Your task to perform on an android device: change keyboard looks Image 0: 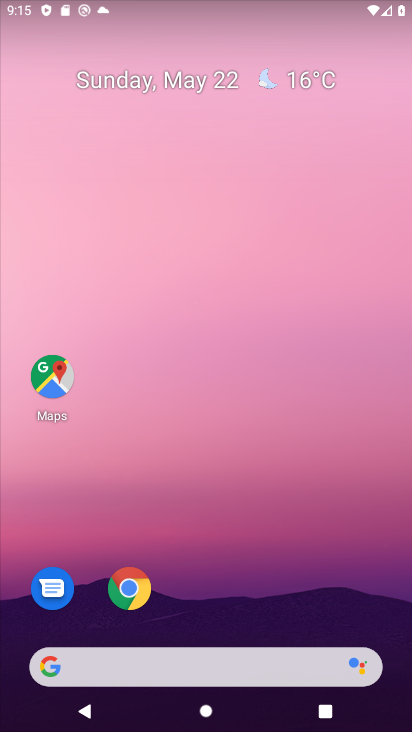
Step 0: drag from (220, 614) to (212, 106)
Your task to perform on an android device: change keyboard looks Image 1: 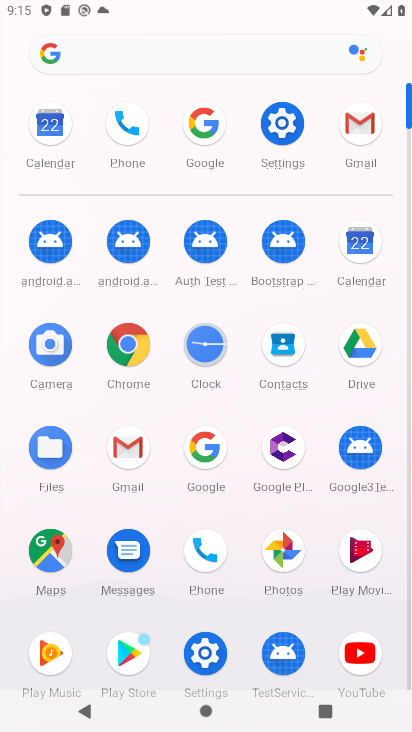
Step 1: click (316, 121)
Your task to perform on an android device: change keyboard looks Image 2: 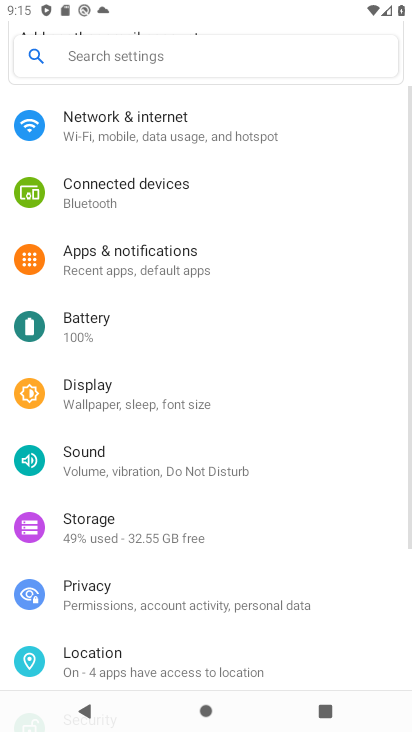
Step 2: drag from (156, 592) to (154, 237)
Your task to perform on an android device: change keyboard looks Image 3: 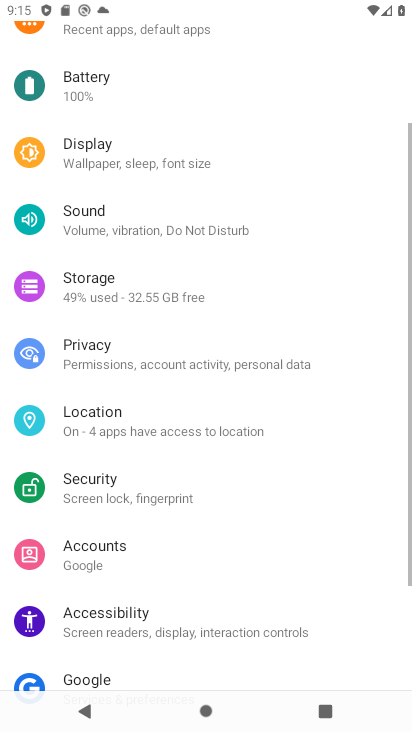
Step 3: drag from (227, 544) to (190, 282)
Your task to perform on an android device: change keyboard looks Image 4: 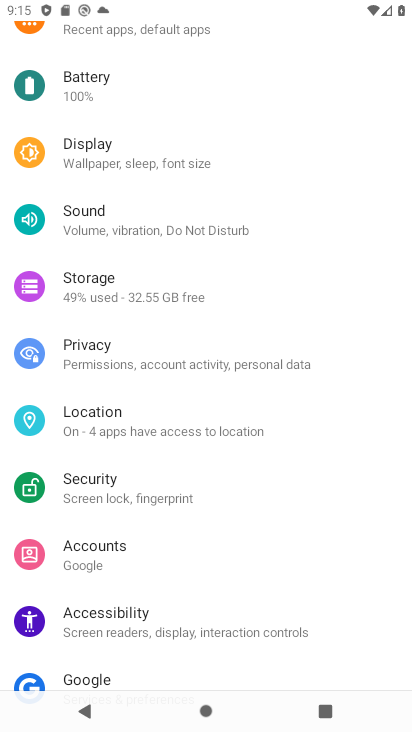
Step 4: drag from (125, 628) to (154, 309)
Your task to perform on an android device: change keyboard looks Image 5: 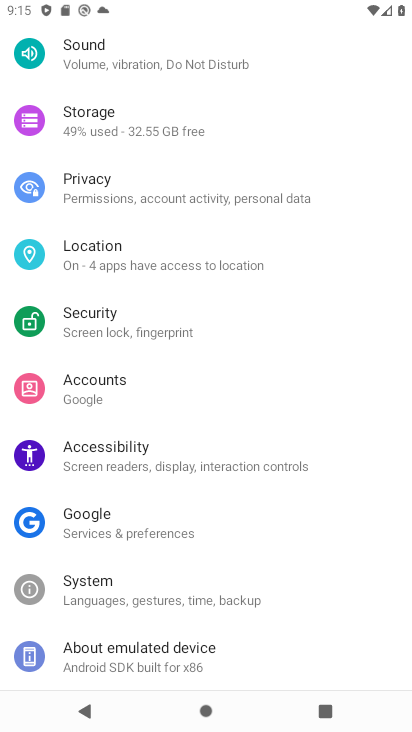
Step 5: click (105, 572)
Your task to perform on an android device: change keyboard looks Image 6: 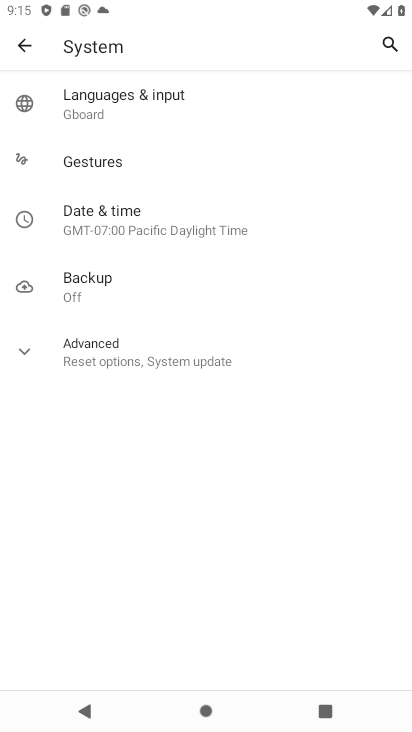
Step 6: click (110, 119)
Your task to perform on an android device: change keyboard looks Image 7: 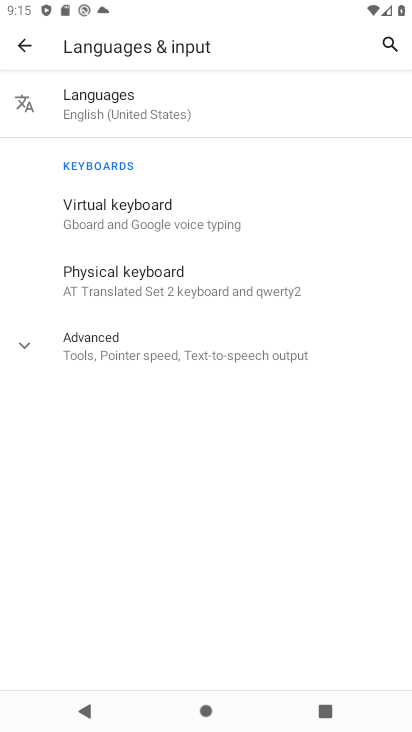
Step 7: click (133, 212)
Your task to perform on an android device: change keyboard looks Image 8: 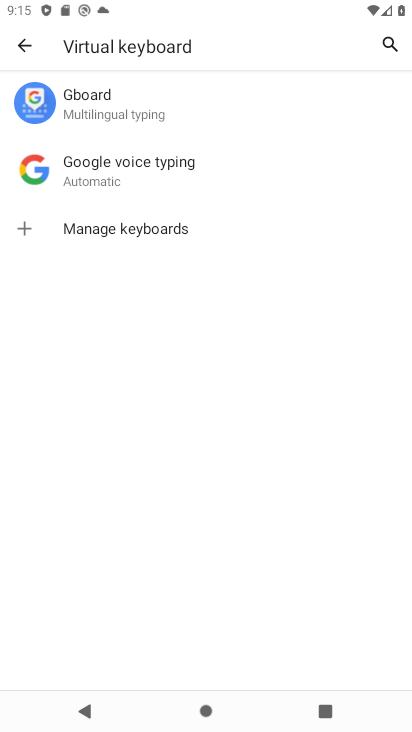
Step 8: click (166, 123)
Your task to perform on an android device: change keyboard looks Image 9: 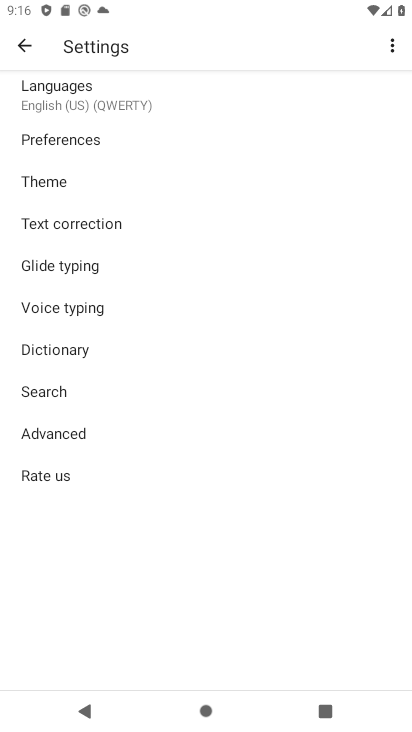
Step 9: click (92, 179)
Your task to perform on an android device: change keyboard looks Image 10: 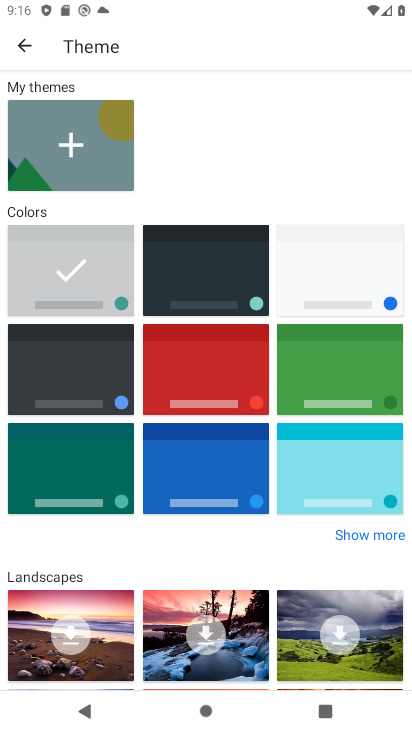
Step 10: click (307, 296)
Your task to perform on an android device: change keyboard looks Image 11: 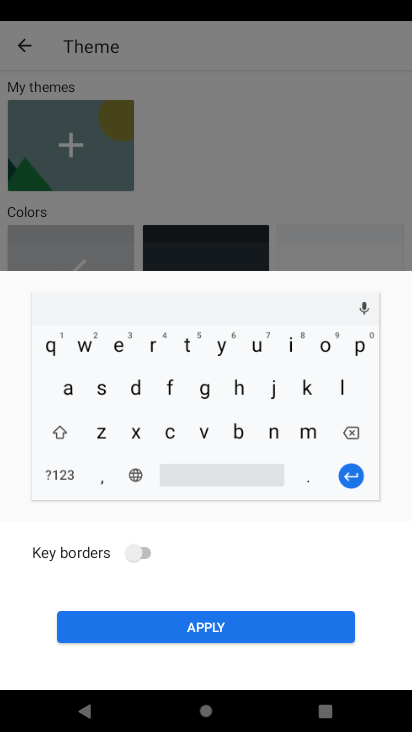
Step 11: click (217, 616)
Your task to perform on an android device: change keyboard looks Image 12: 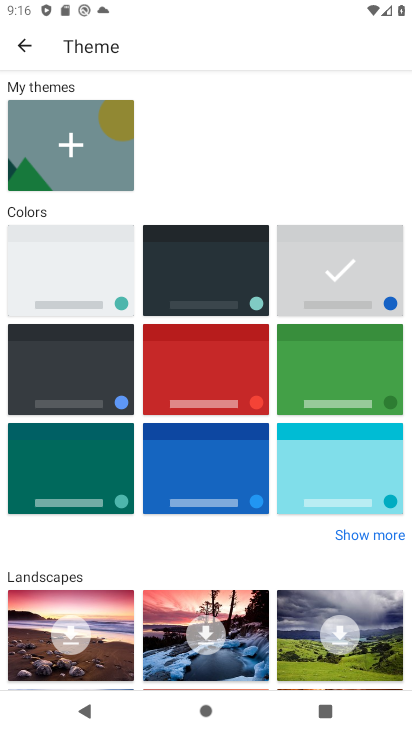
Step 12: task complete